Your task to perform on an android device: turn notification dots off Image 0: 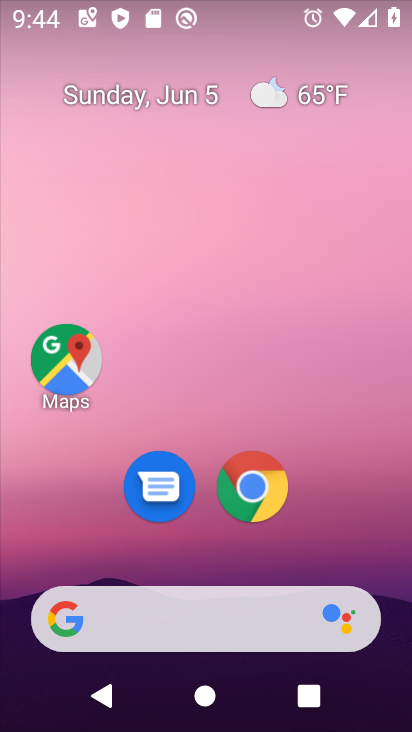
Step 0: drag from (361, 564) to (346, 185)
Your task to perform on an android device: turn notification dots off Image 1: 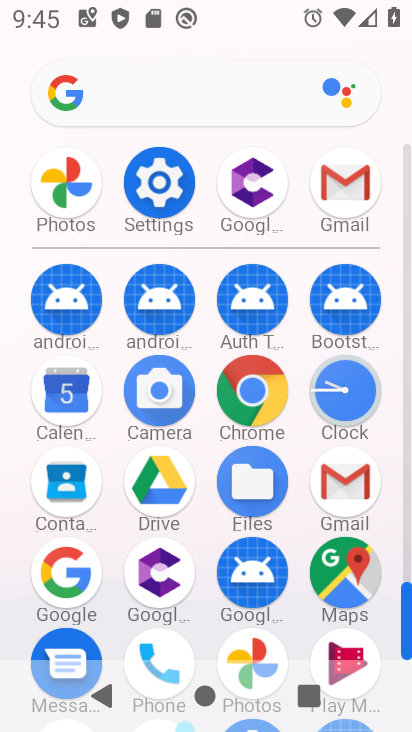
Step 1: click (159, 179)
Your task to perform on an android device: turn notification dots off Image 2: 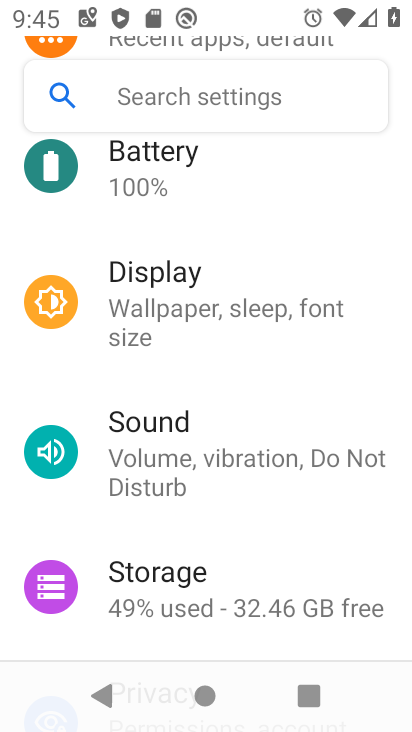
Step 2: drag from (246, 176) to (262, 552)
Your task to perform on an android device: turn notification dots off Image 3: 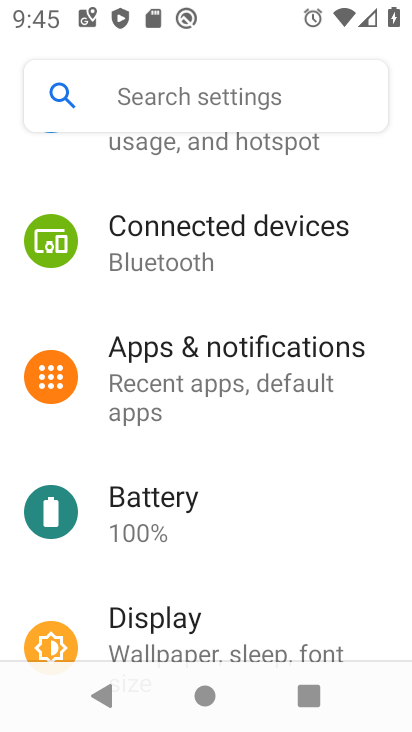
Step 3: click (237, 374)
Your task to perform on an android device: turn notification dots off Image 4: 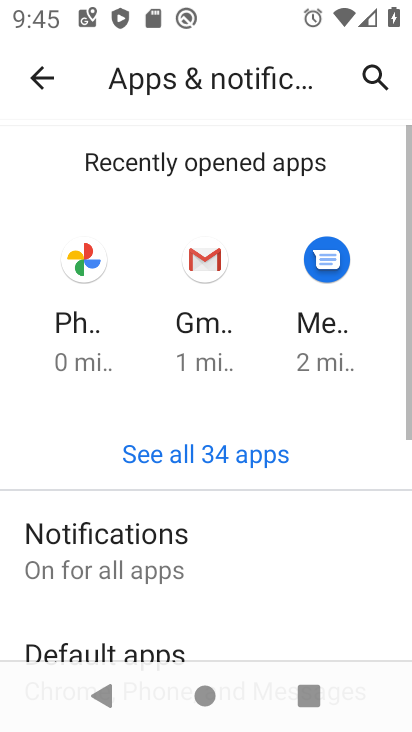
Step 4: drag from (212, 535) to (213, 244)
Your task to perform on an android device: turn notification dots off Image 5: 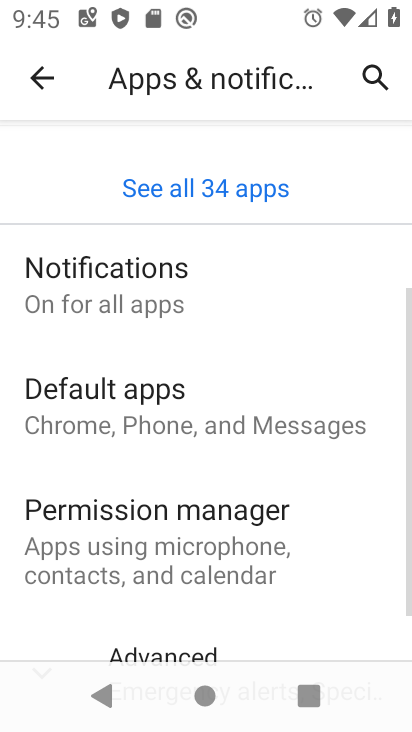
Step 5: drag from (215, 589) to (260, 278)
Your task to perform on an android device: turn notification dots off Image 6: 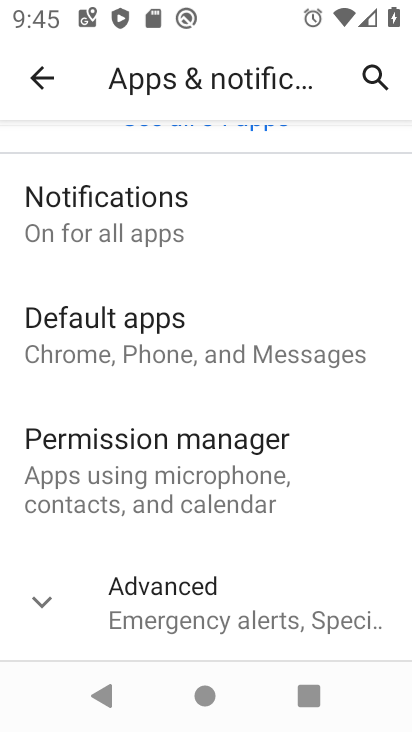
Step 6: click (177, 226)
Your task to perform on an android device: turn notification dots off Image 7: 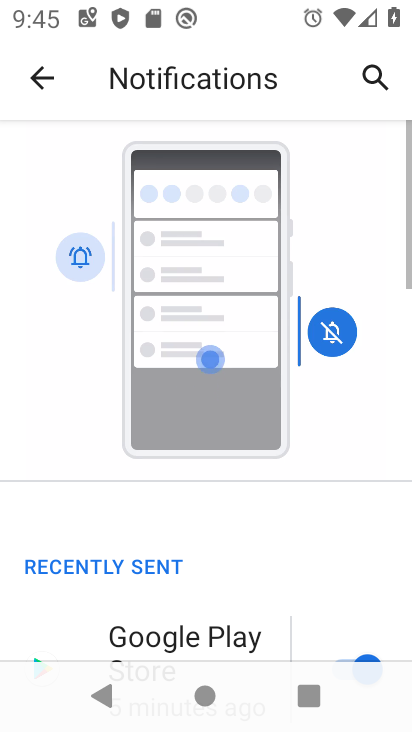
Step 7: drag from (242, 542) to (287, 229)
Your task to perform on an android device: turn notification dots off Image 8: 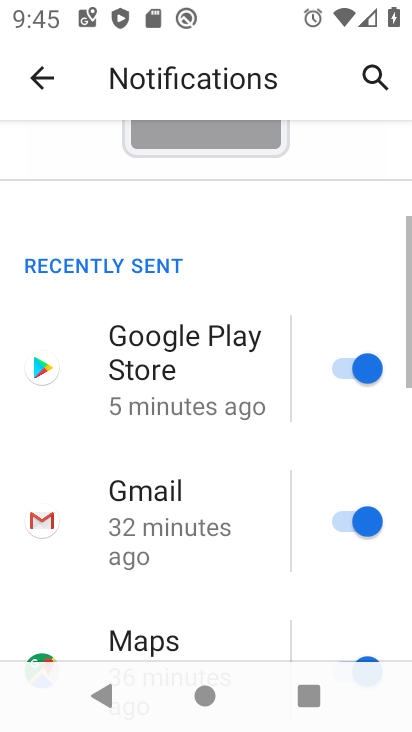
Step 8: drag from (268, 572) to (268, 203)
Your task to perform on an android device: turn notification dots off Image 9: 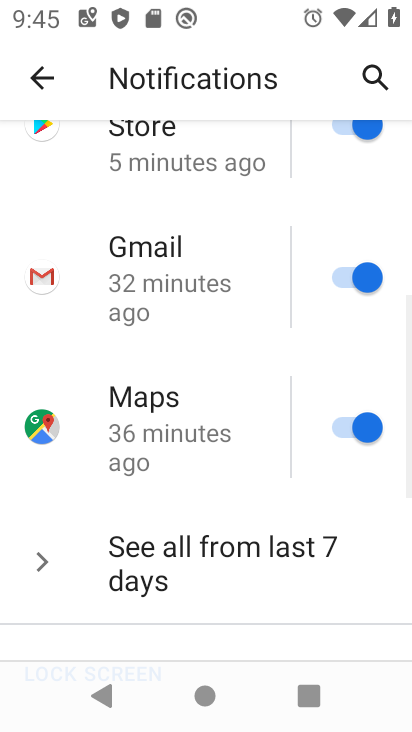
Step 9: drag from (196, 603) to (237, 243)
Your task to perform on an android device: turn notification dots off Image 10: 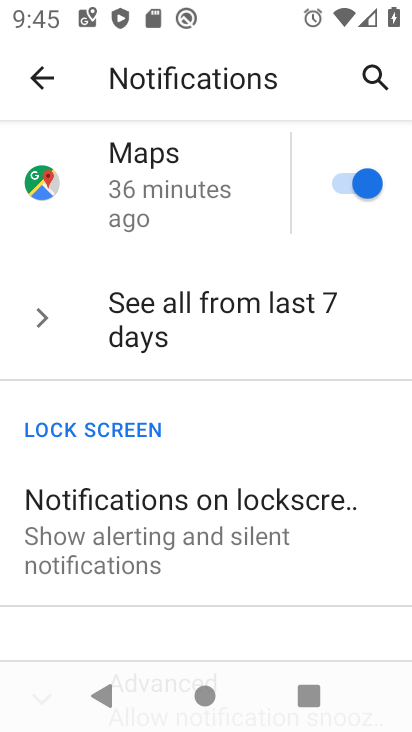
Step 10: drag from (211, 604) to (211, 230)
Your task to perform on an android device: turn notification dots off Image 11: 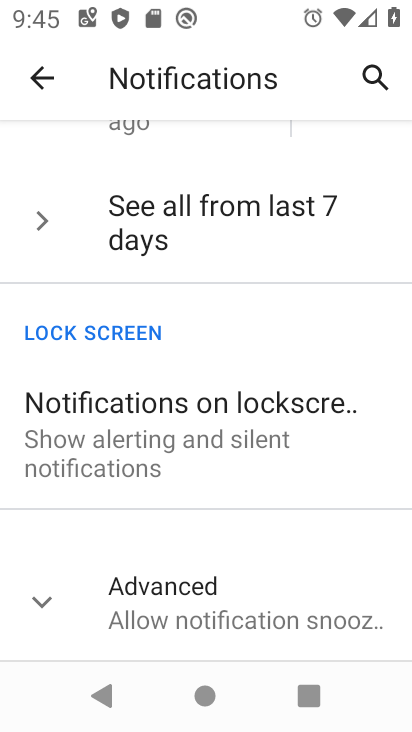
Step 11: click (164, 604)
Your task to perform on an android device: turn notification dots off Image 12: 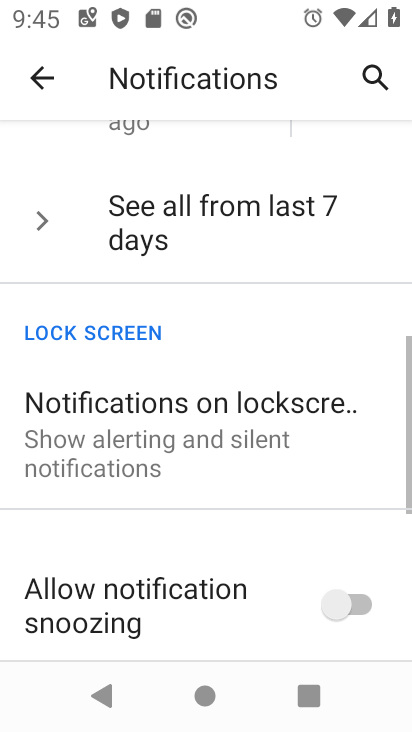
Step 12: drag from (211, 609) to (222, 259)
Your task to perform on an android device: turn notification dots off Image 13: 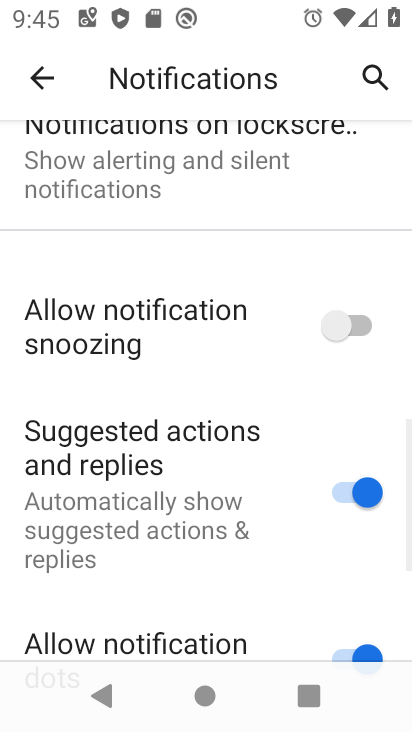
Step 13: drag from (189, 607) to (218, 287)
Your task to perform on an android device: turn notification dots off Image 14: 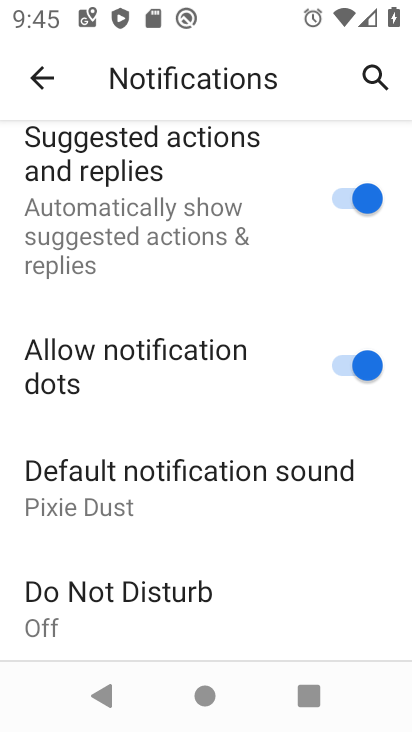
Step 14: drag from (216, 565) to (191, 349)
Your task to perform on an android device: turn notification dots off Image 15: 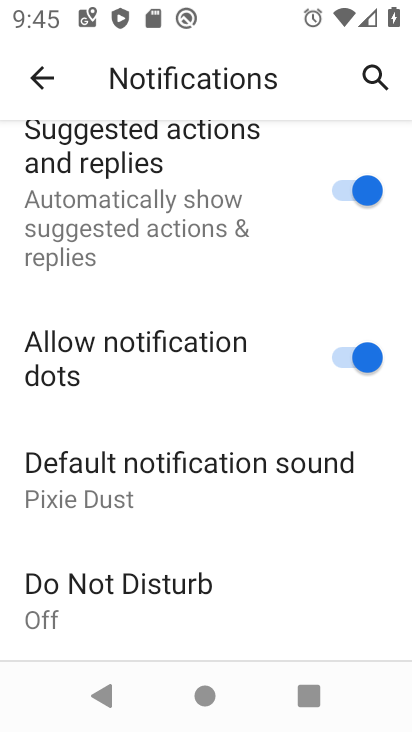
Step 15: click (346, 362)
Your task to perform on an android device: turn notification dots off Image 16: 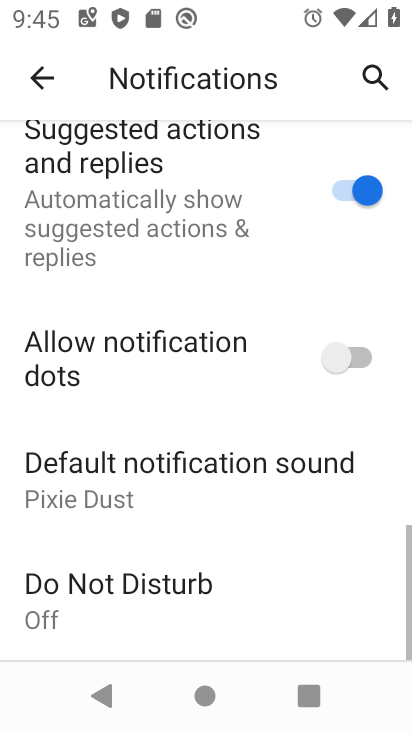
Step 16: task complete